Your task to perform on an android device: What is the recent news? Image 0: 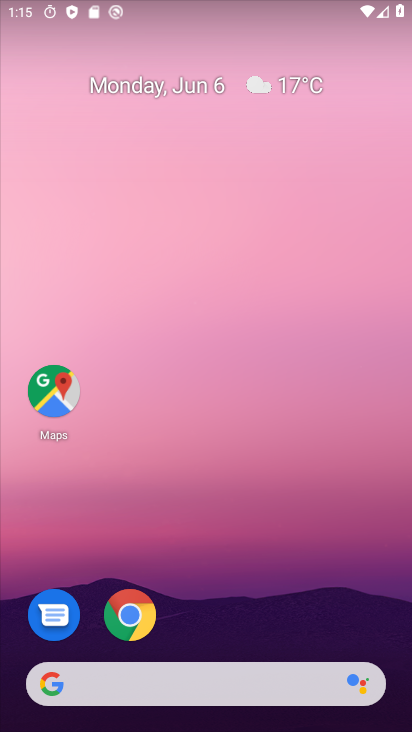
Step 0: click (248, 207)
Your task to perform on an android device: What is the recent news? Image 1: 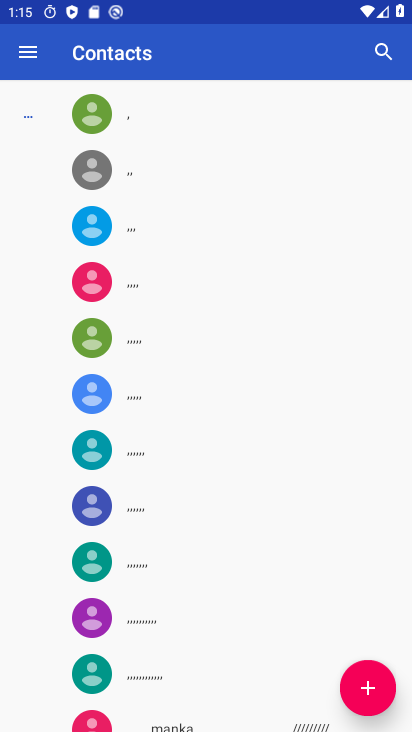
Step 1: press home button
Your task to perform on an android device: What is the recent news? Image 2: 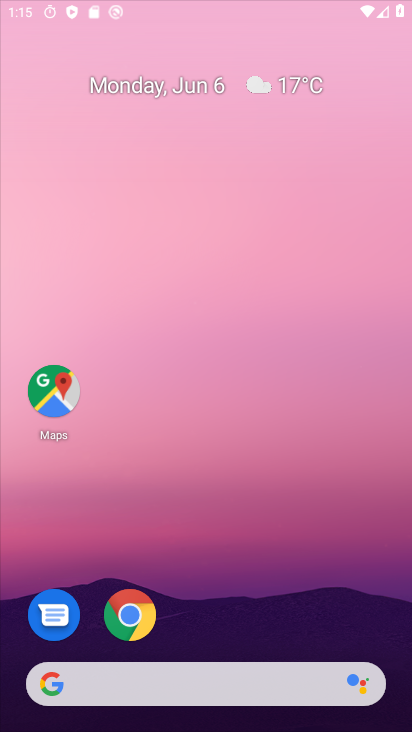
Step 2: drag from (244, 642) to (259, 345)
Your task to perform on an android device: What is the recent news? Image 3: 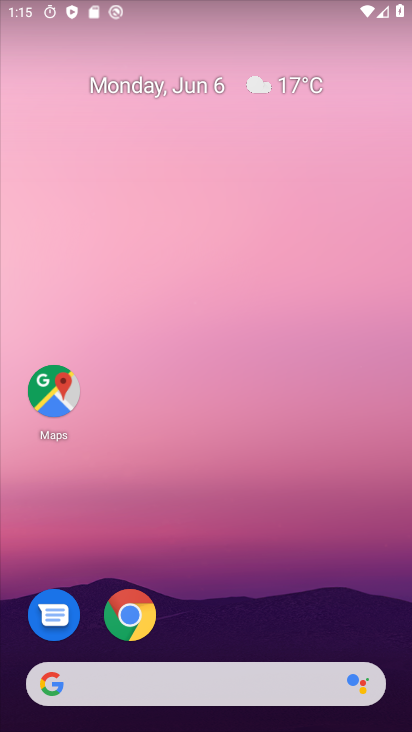
Step 3: drag from (254, 659) to (334, 208)
Your task to perform on an android device: What is the recent news? Image 4: 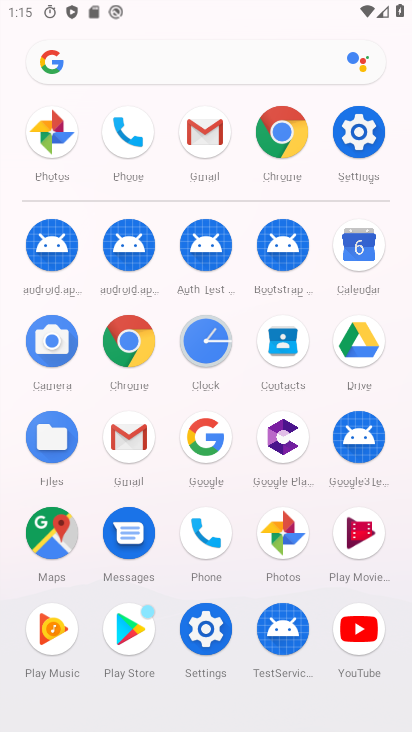
Step 4: drag from (170, 594) to (183, 312)
Your task to perform on an android device: What is the recent news? Image 5: 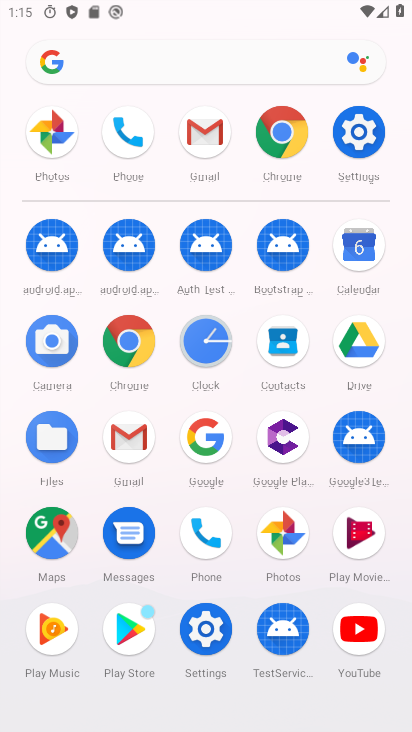
Step 5: click (202, 441)
Your task to perform on an android device: What is the recent news? Image 6: 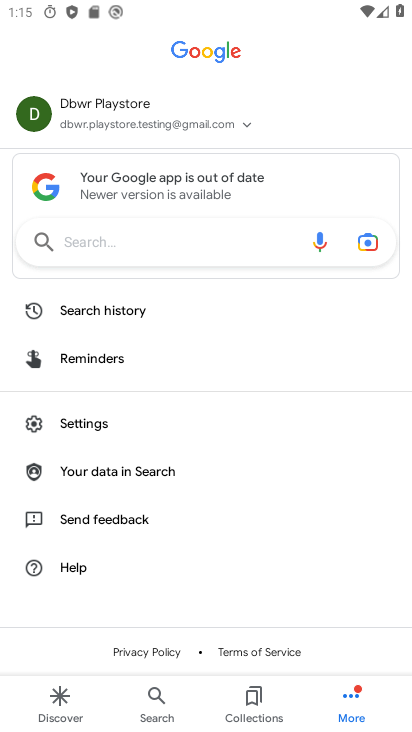
Step 6: click (75, 701)
Your task to perform on an android device: What is the recent news? Image 7: 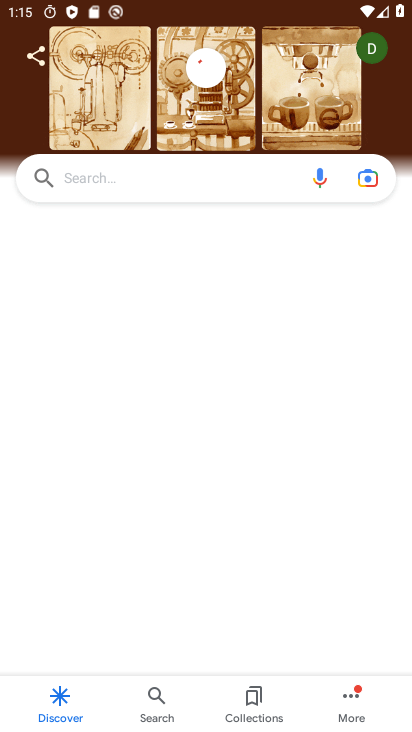
Step 7: click (114, 174)
Your task to perform on an android device: What is the recent news? Image 8: 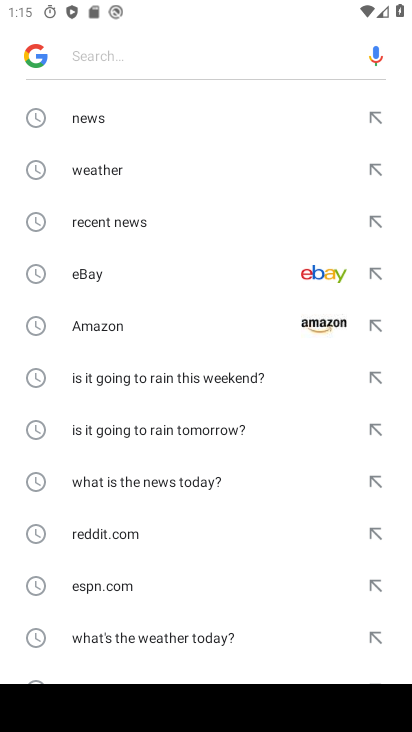
Step 8: click (111, 220)
Your task to perform on an android device: What is the recent news? Image 9: 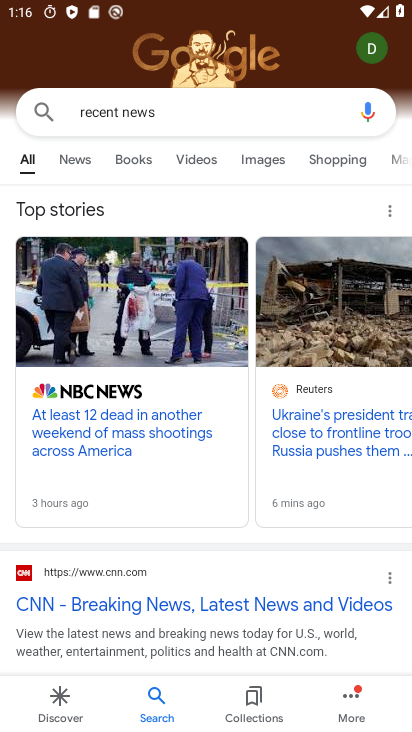
Step 9: task complete